Your task to perform on an android device: check out phone information Image 0: 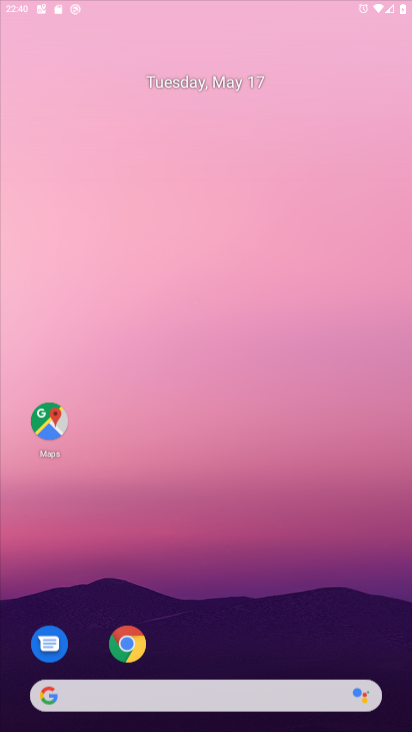
Step 0: press home button
Your task to perform on an android device: check out phone information Image 1: 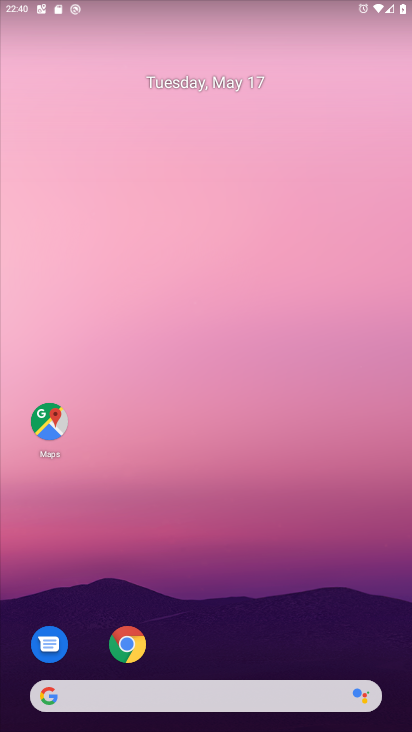
Step 1: drag from (225, 633) to (238, 212)
Your task to perform on an android device: check out phone information Image 2: 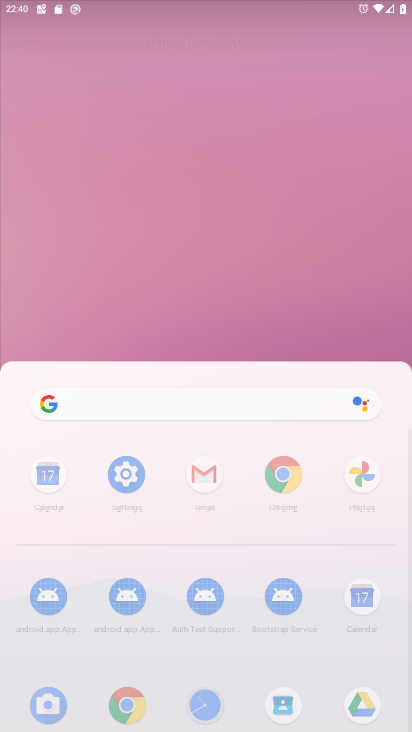
Step 2: click (238, 30)
Your task to perform on an android device: check out phone information Image 3: 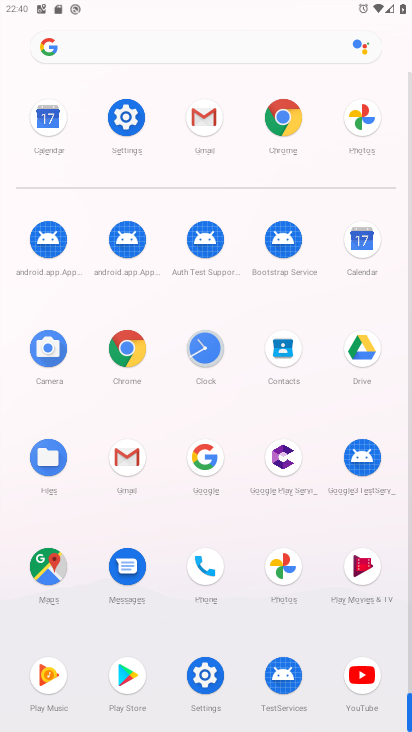
Step 3: click (215, 674)
Your task to perform on an android device: check out phone information Image 4: 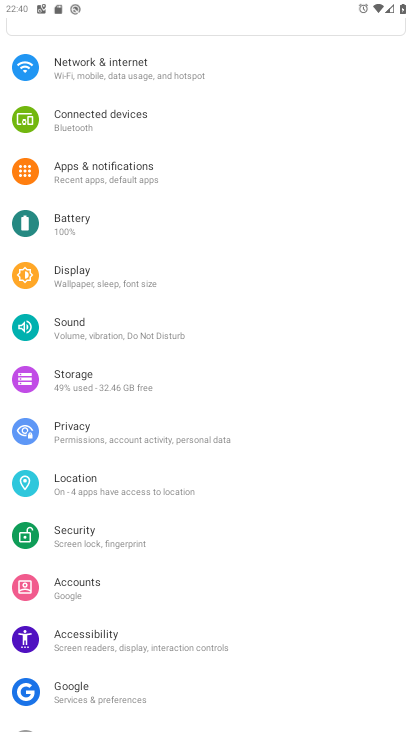
Step 4: drag from (137, 652) to (132, 144)
Your task to perform on an android device: check out phone information Image 5: 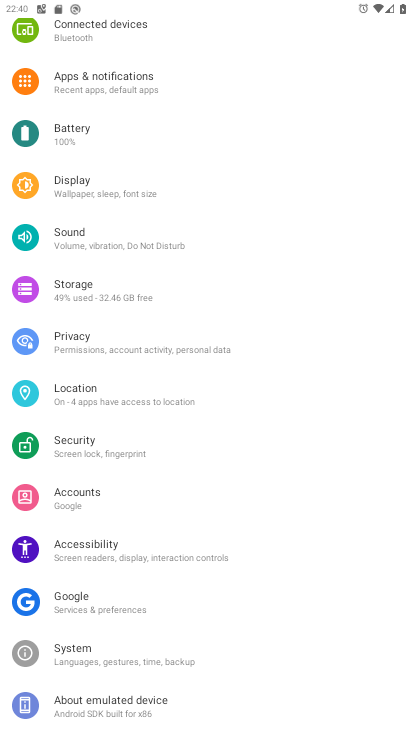
Step 5: click (146, 704)
Your task to perform on an android device: check out phone information Image 6: 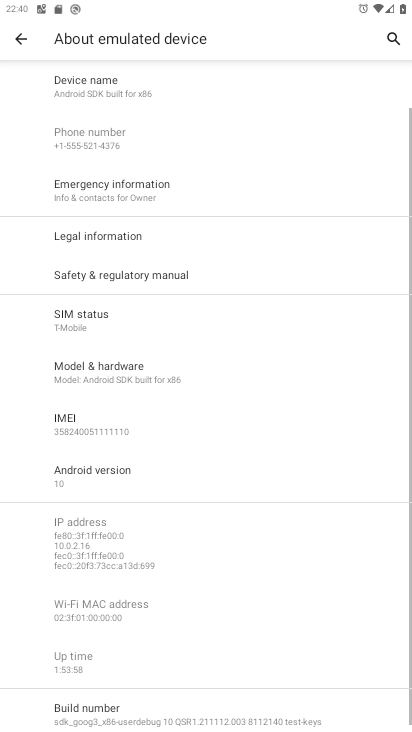
Step 6: drag from (131, 437) to (133, 231)
Your task to perform on an android device: check out phone information Image 7: 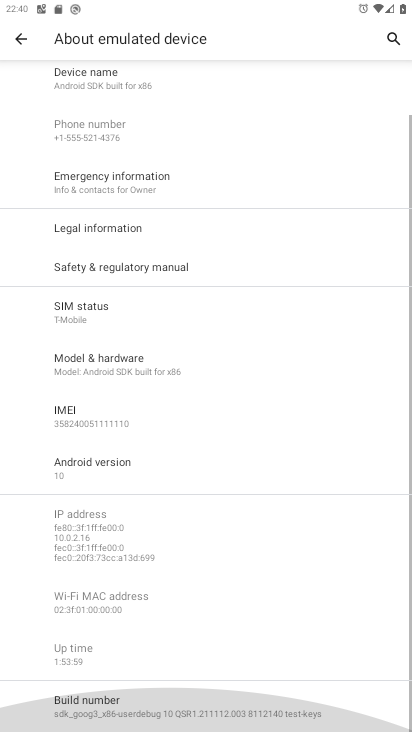
Step 7: click (135, 133)
Your task to perform on an android device: check out phone information Image 8: 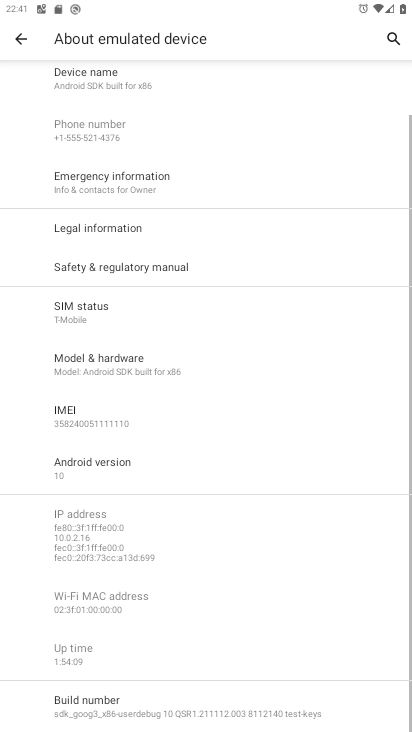
Step 8: drag from (156, 596) to (165, 312)
Your task to perform on an android device: check out phone information Image 9: 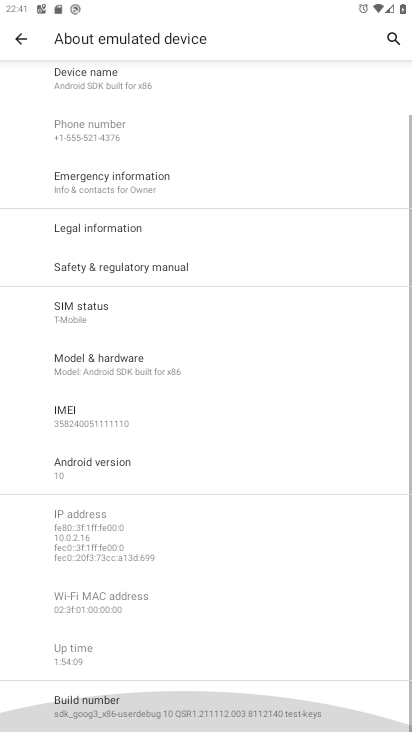
Step 9: click (168, 218)
Your task to perform on an android device: check out phone information Image 10: 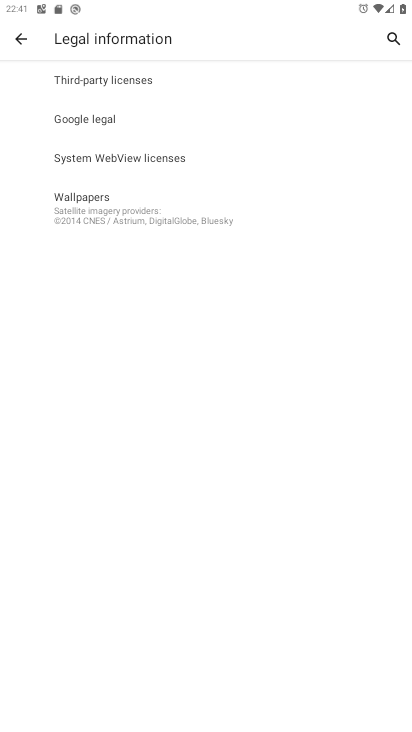
Step 10: task complete